Your task to perform on an android device: What's the weather going to be this weekend? Image 0: 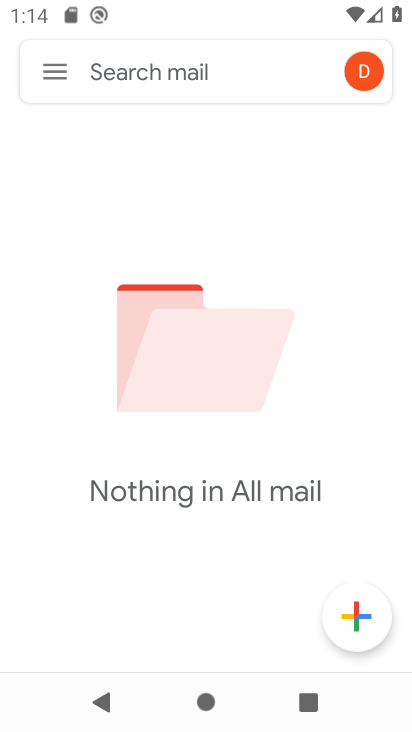
Step 0: press home button
Your task to perform on an android device: What's the weather going to be this weekend? Image 1: 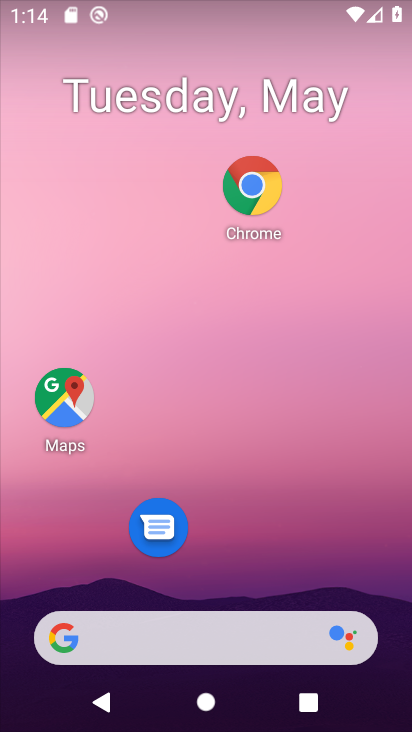
Step 1: click (195, 626)
Your task to perform on an android device: What's the weather going to be this weekend? Image 2: 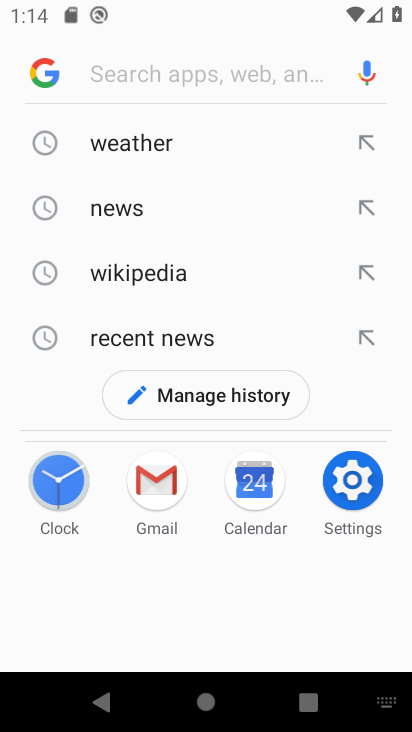
Step 2: click (118, 141)
Your task to perform on an android device: What's the weather going to be this weekend? Image 3: 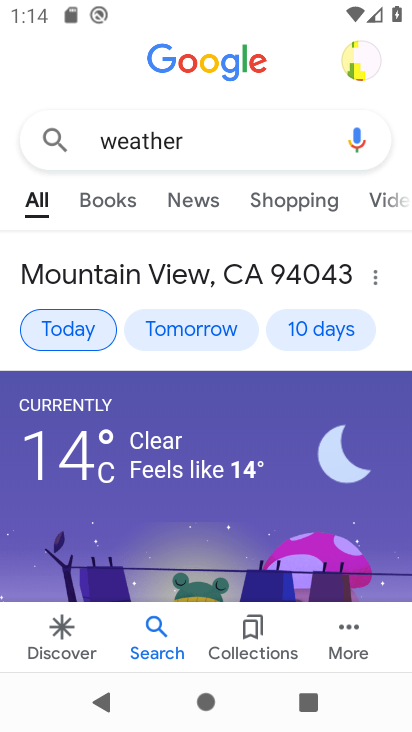
Step 3: click (307, 307)
Your task to perform on an android device: What's the weather going to be this weekend? Image 4: 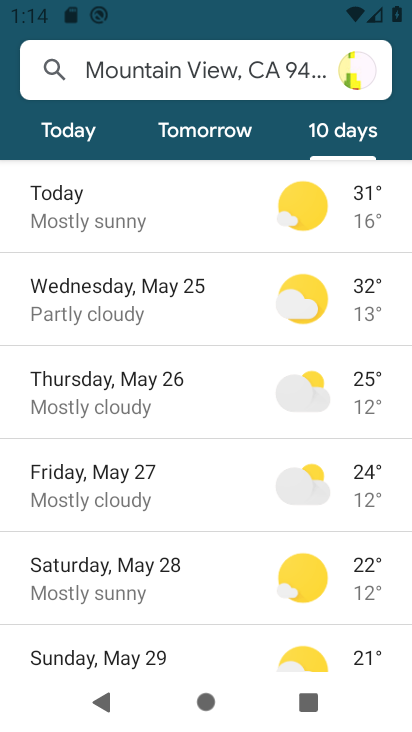
Step 4: task complete